Your task to perform on an android device: turn vacation reply on in the gmail app Image 0: 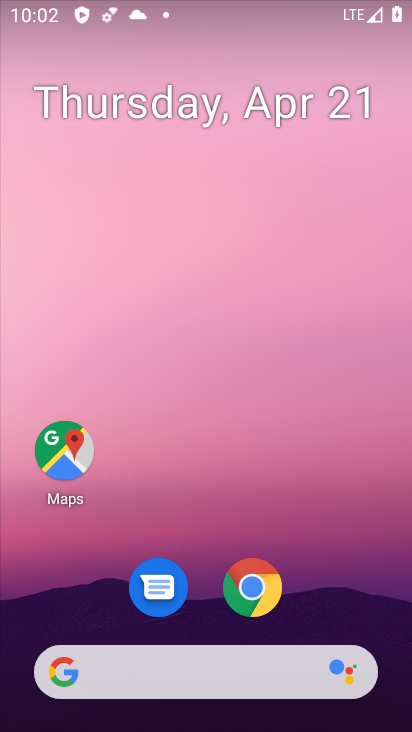
Step 0: drag from (358, 593) to (347, 187)
Your task to perform on an android device: turn vacation reply on in the gmail app Image 1: 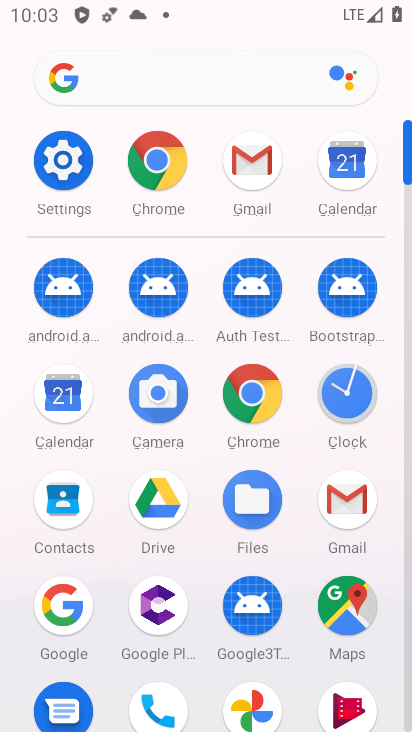
Step 1: click (365, 501)
Your task to perform on an android device: turn vacation reply on in the gmail app Image 2: 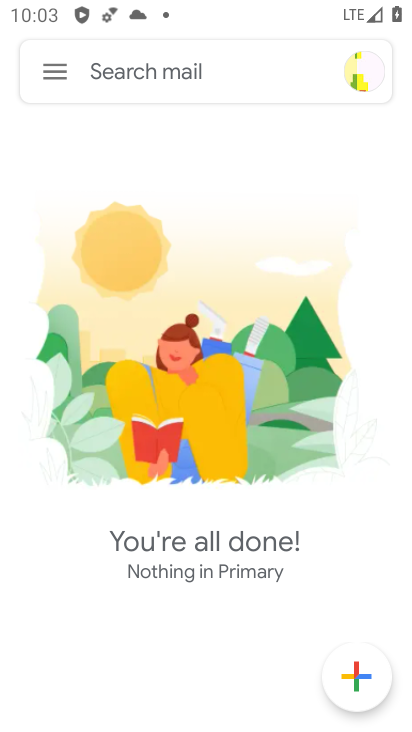
Step 2: click (50, 75)
Your task to perform on an android device: turn vacation reply on in the gmail app Image 3: 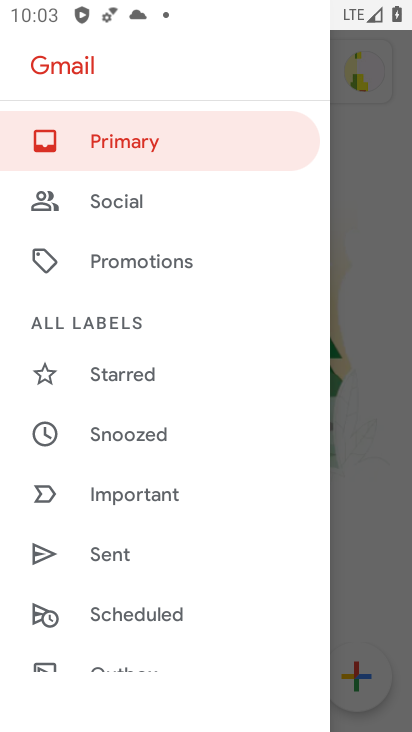
Step 3: drag from (231, 491) to (238, 361)
Your task to perform on an android device: turn vacation reply on in the gmail app Image 4: 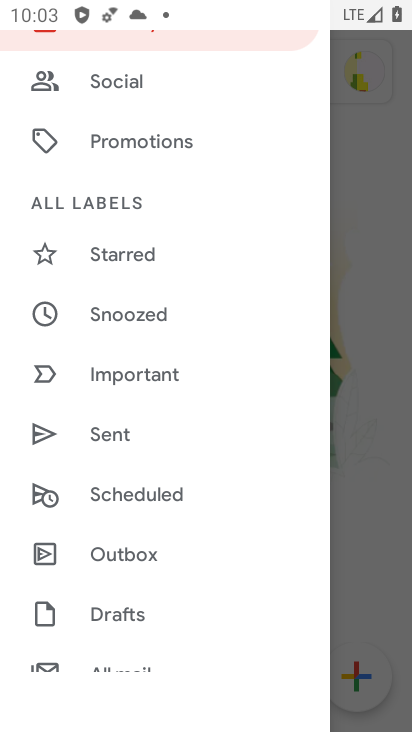
Step 4: drag from (249, 544) to (263, 356)
Your task to perform on an android device: turn vacation reply on in the gmail app Image 5: 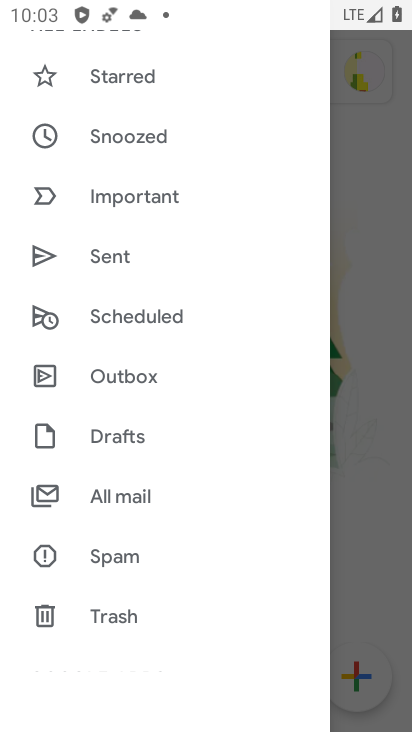
Step 5: drag from (260, 567) to (264, 394)
Your task to perform on an android device: turn vacation reply on in the gmail app Image 6: 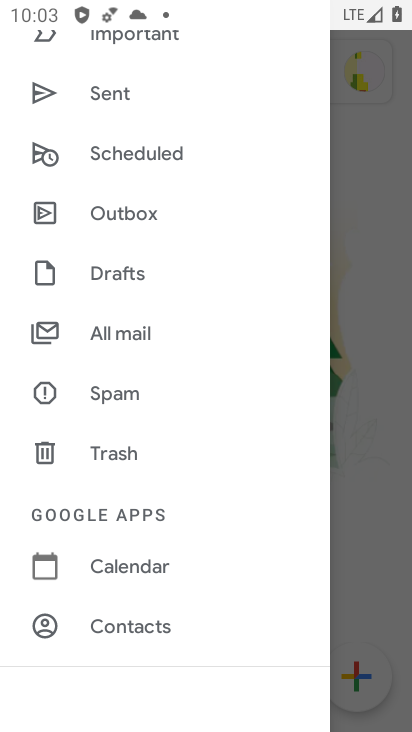
Step 6: drag from (232, 579) to (246, 418)
Your task to perform on an android device: turn vacation reply on in the gmail app Image 7: 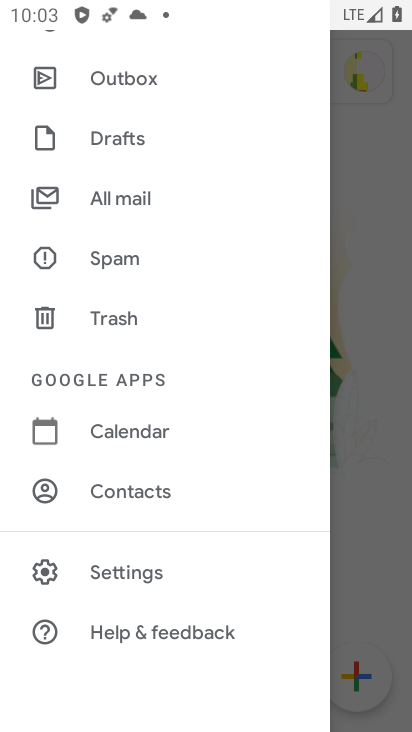
Step 7: drag from (273, 644) to (281, 515)
Your task to perform on an android device: turn vacation reply on in the gmail app Image 8: 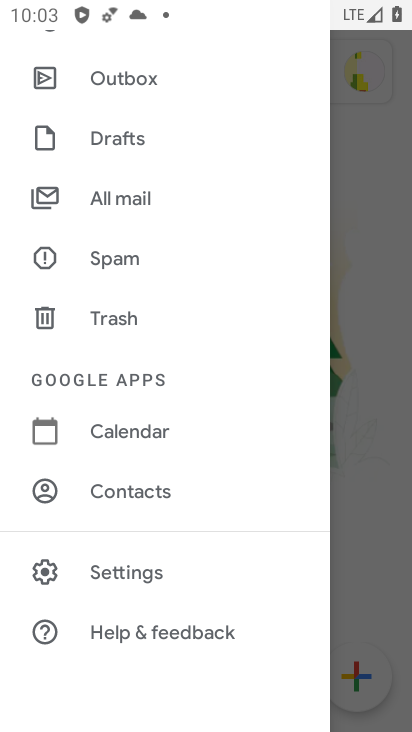
Step 8: click (150, 571)
Your task to perform on an android device: turn vacation reply on in the gmail app Image 9: 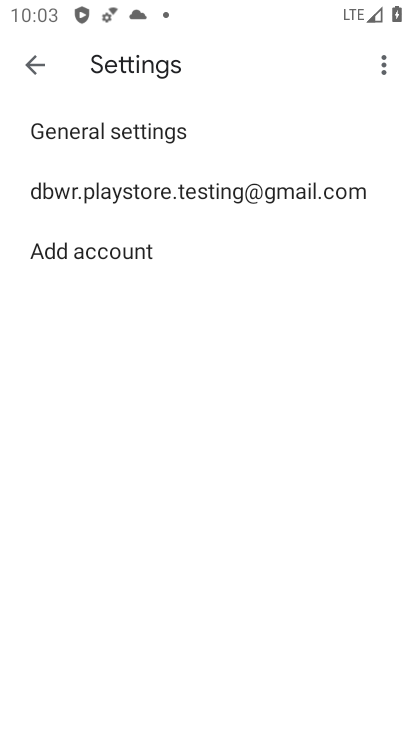
Step 9: click (232, 182)
Your task to perform on an android device: turn vacation reply on in the gmail app Image 10: 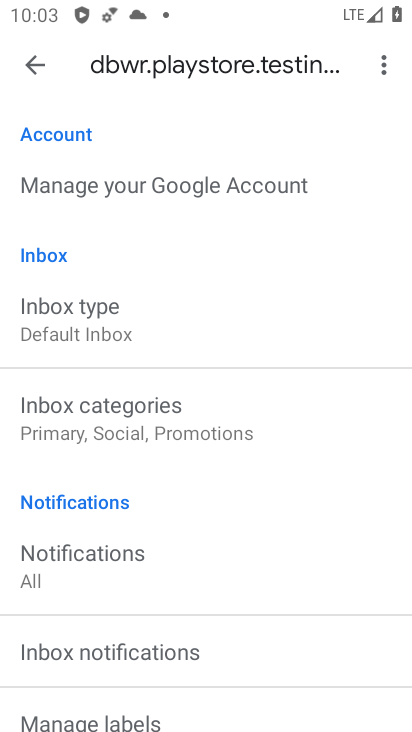
Step 10: drag from (292, 563) to (311, 395)
Your task to perform on an android device: turn vacation reply on in the gmail app Image 11: 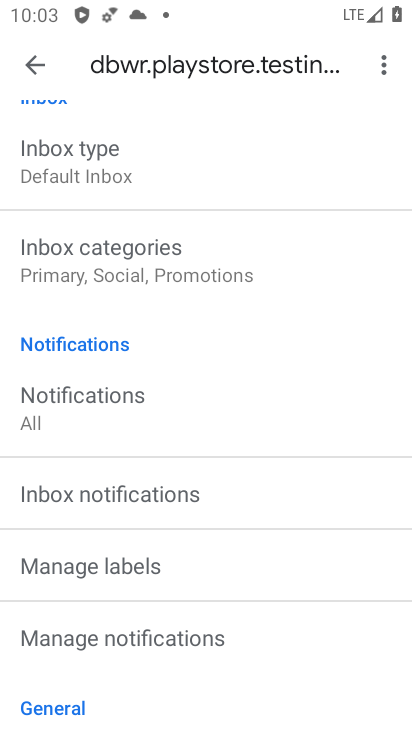
Step 11: drag from (305, 584) to (311, 419)
Your task to perform on an android device: turn vacation reply on in the gmail app Image 12: 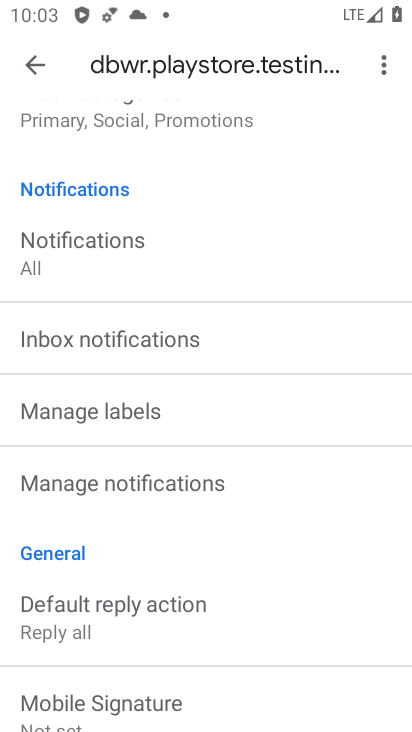
Step 12: drag from (293, 592) to (322, 364)
Your task to perform on an android device: turn vacation reply on in the gmail app Image 13: 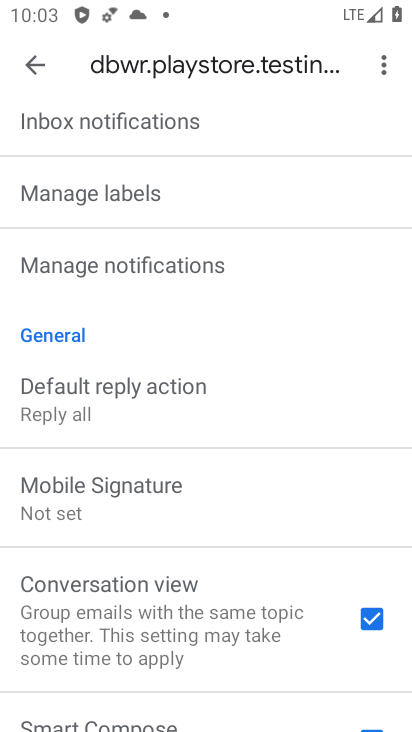
Step 13: drag from (308, 655) to (309, 433)
Your task to perform on an android device: turn vacation reply on in the gmail app Image 14: 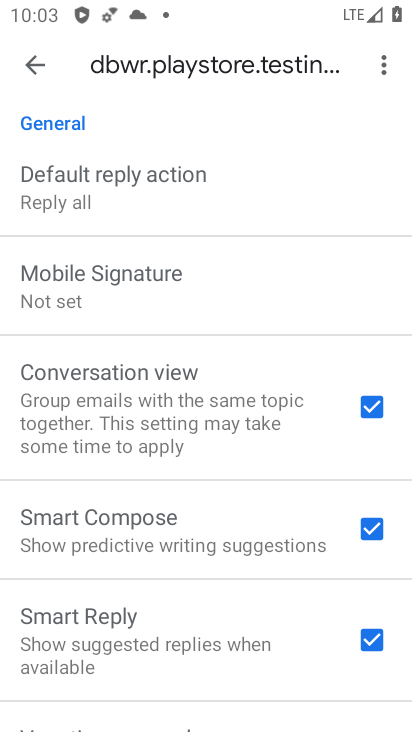
Step 14: drag from (303, 636) to (309, 435)
Your task to perform on an android device: turn vacation reply on in the gmail app Image 15: 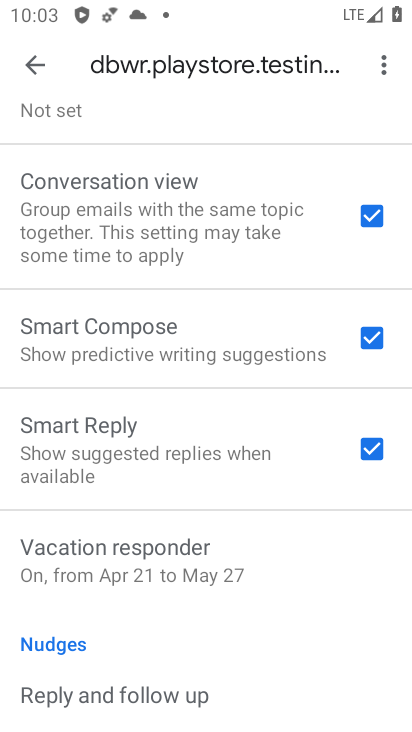
Step 15: drag from (289, 638) to (312, 449)
Your task to perform on an android device: turn vacation reply on in the gmail app Image 16: 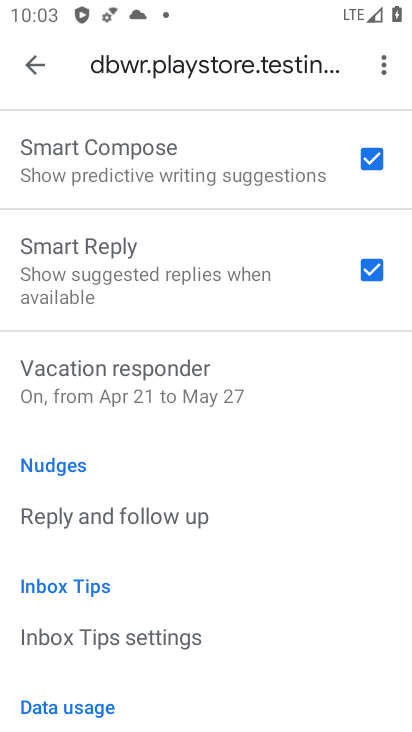
Step 16: drag from (306, 591) to (306, 387)
Your task to perform on an android device: turn vacation reply on in the gmail app Image 17: 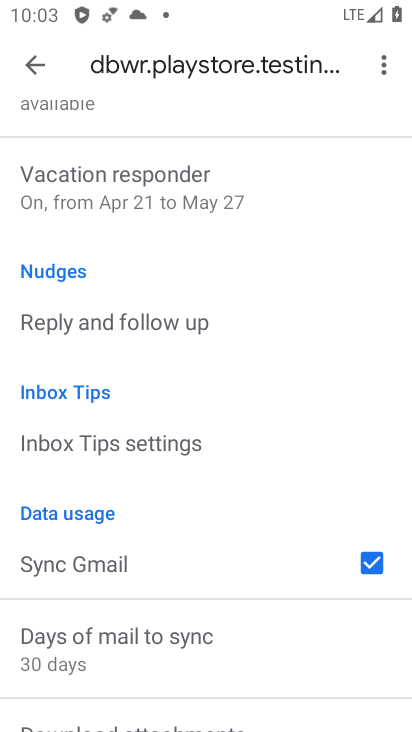
Step 17: drag from (314, 326) to (286, 526)
Your task to perform on an android device: turn vacation reply on in the gmail app Image 18: 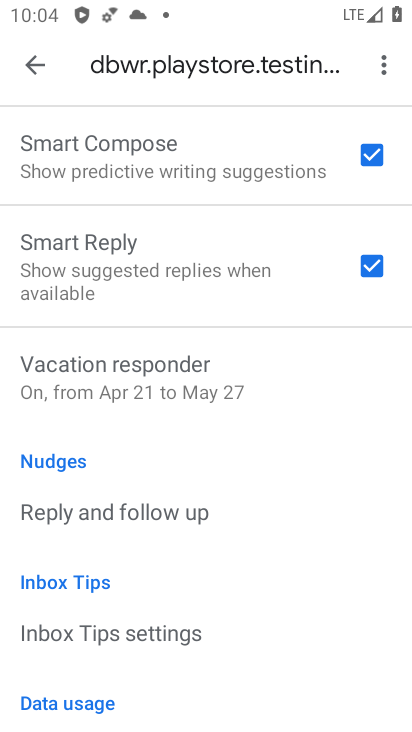
Step 18: drag from (298, 434) to (290, 540)
Your task to perform on an android device: turn vacation reply on in the gmail app Image 19: 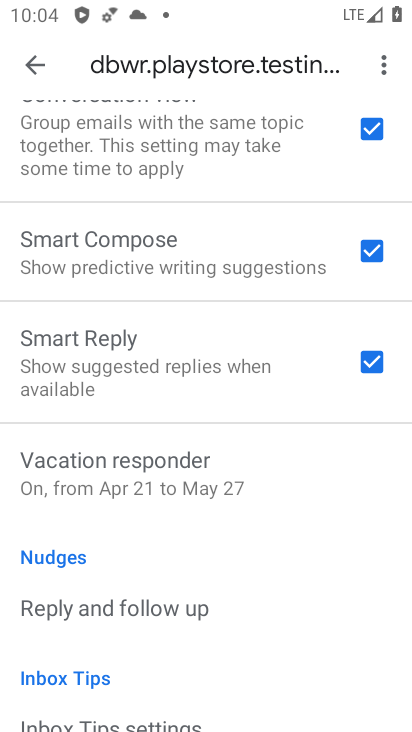
Step 19: click (187, 485)
Your task to perform on an android device: turn vacation reply on in the gmail app Image 20: 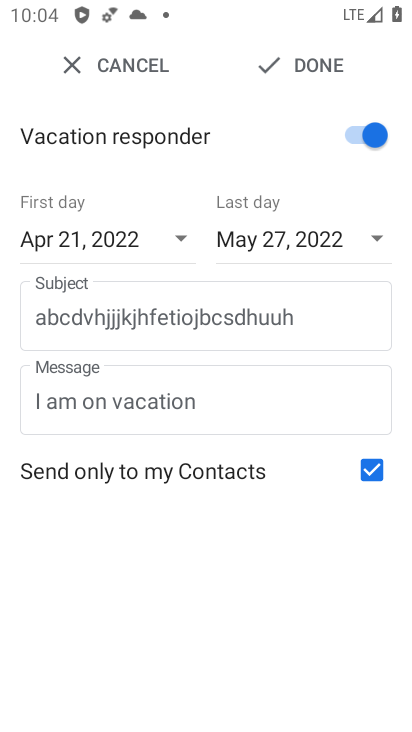
Step 20: task complete